Your task to perform on an android device: Open the stopwatch Image 0: 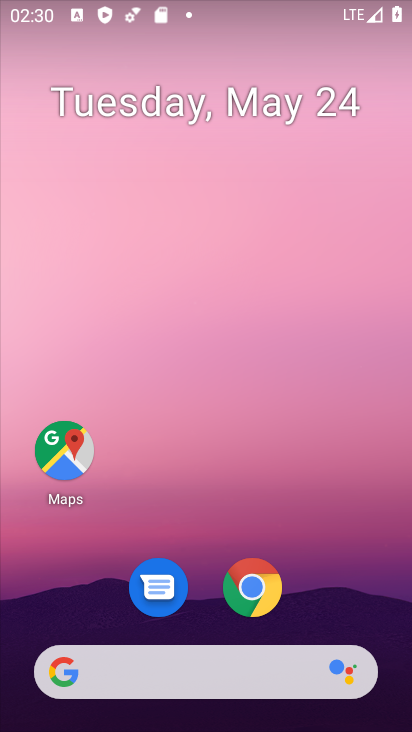
Step 0: drag from (291, 600) to (206, 57)
Your task to perform on an android device: Open the stopwatch Image 1: 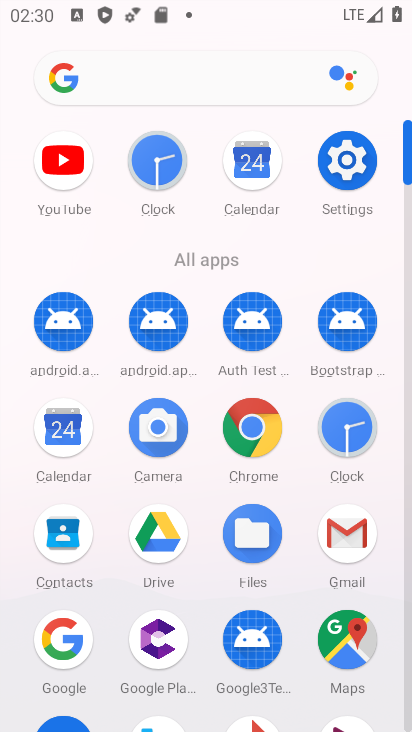
Step 1: click (355, 435)
Your task to perform on an android device: Open the stopwatch Image 2: 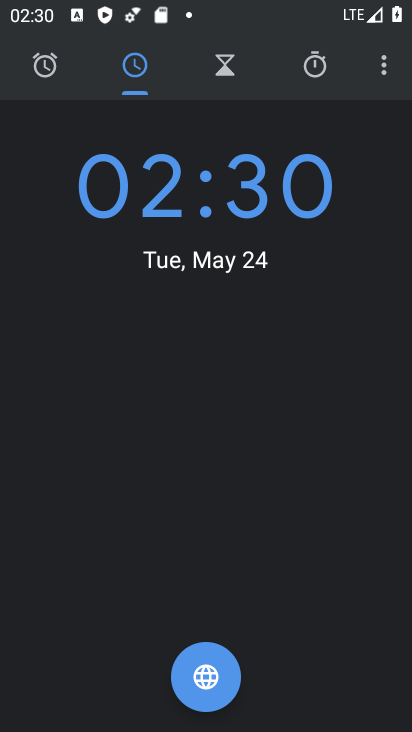
Step 2: click (315, 62)
Your task to perform on an android device: Open the stopwatch Image 3: 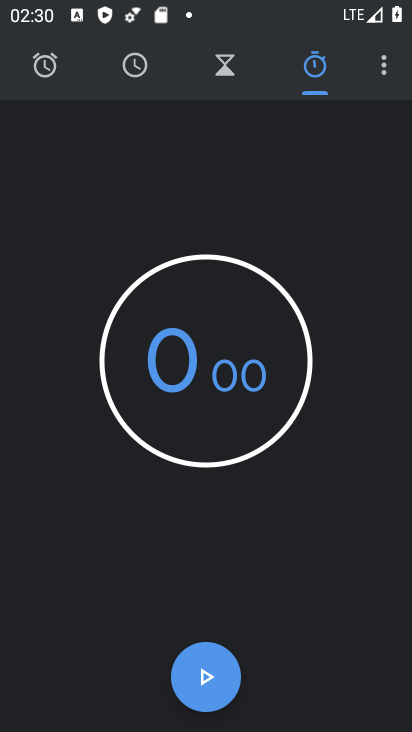
Step 3: task complete